Your task to perform on an android device: change the clock style Image 0: 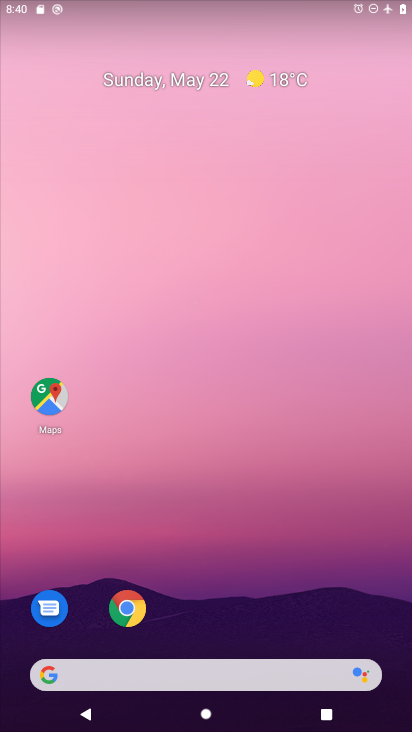
Step 0: drag from (220, 729) to (208, 75)
Your task to perform on an android device: change the clock style Image 1: 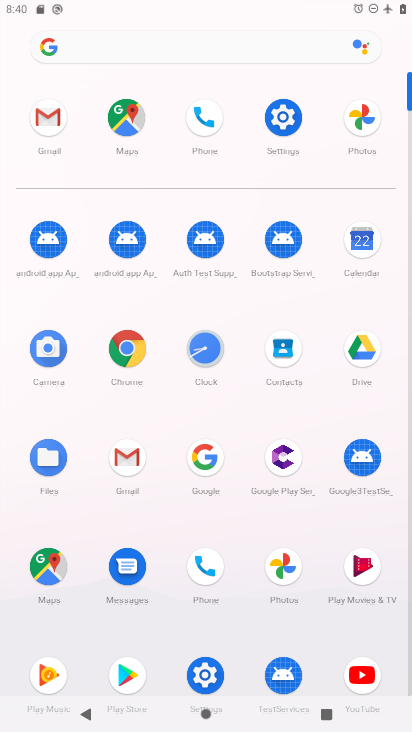
Step 1: click (205, 355)
Your task to perform on an android device: change the clock style Image 2: 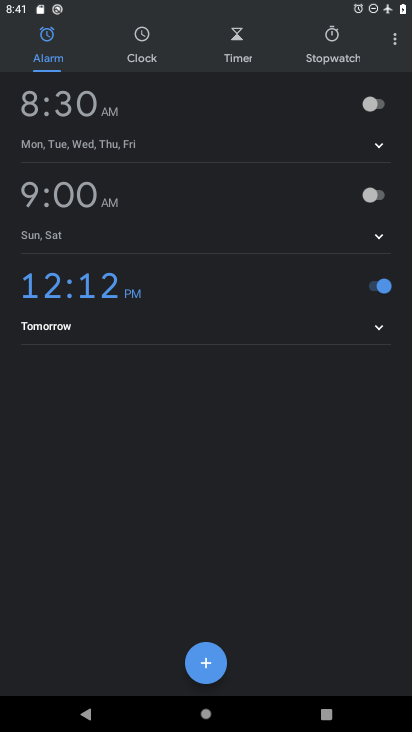
Step 2: click (396, 44)
Your task to perform on an android device: change the clock style Image 3: 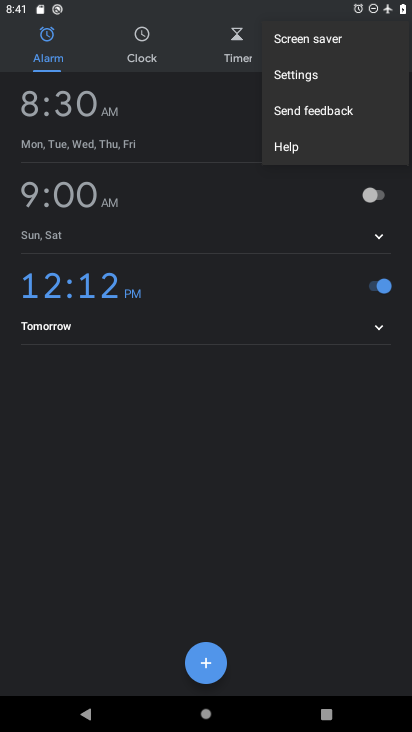
Step 3: click (291, 77)
Your task to perform on an android device: change the clock style Image 4: 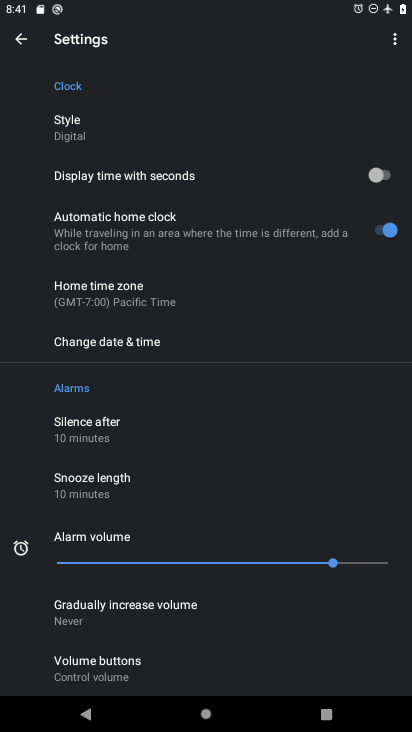
Step 4: click (80, 134)
Your task to perform on an android device: change the clock style Image 5: 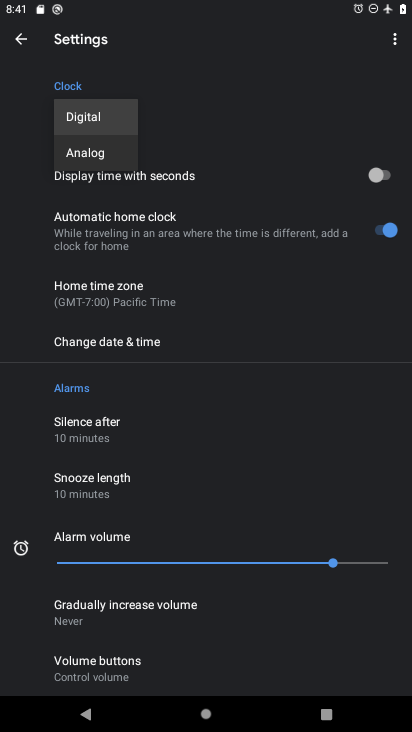
Step 5: click (86, 150)
Your task to perform on an android device: change the clock style Image 6: 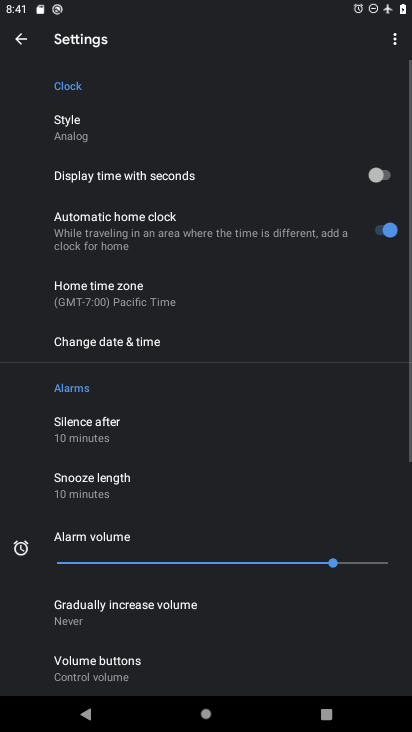
Step 6: task complete